Your task to perform on an android device: turn on javascript in the chrome app Image 0: 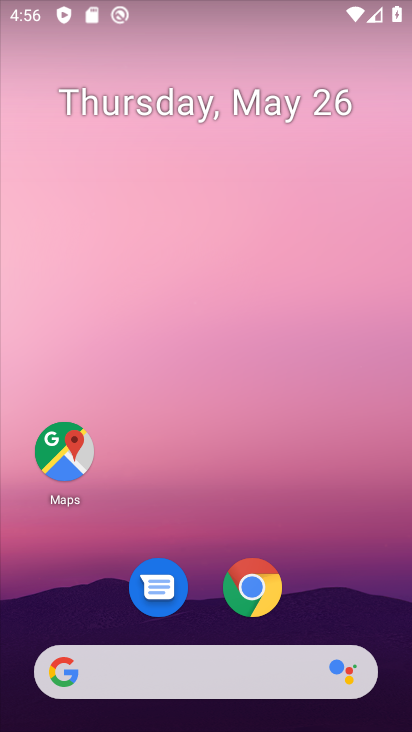
Step 0: click (246, 594)
Your task to perform on an android device: turn on javascript in the chrome app Image 1: 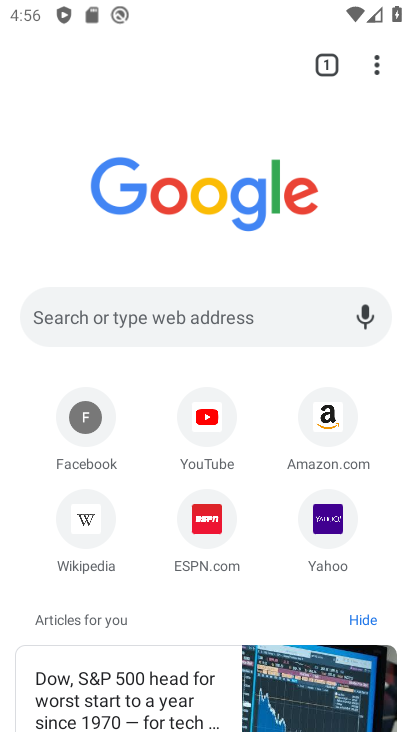
Step 1: click (376, 70)
Your task to perform on an android device: turn on javascript in the chrome app Image 2: 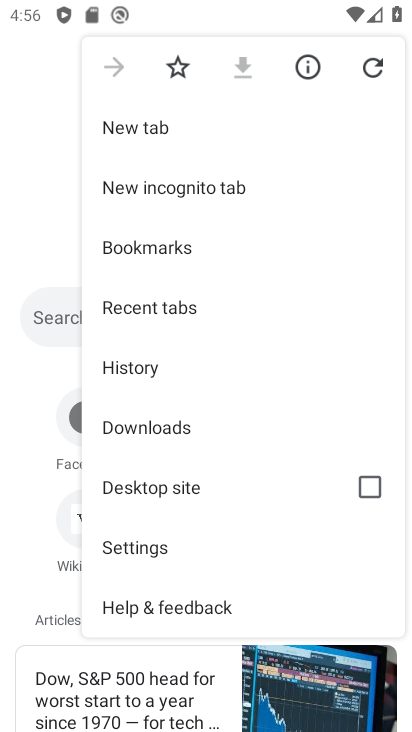
Step 2: click (130, 544)
Your task to perform on an android device: turn on javascript in the chrome app Image 3: 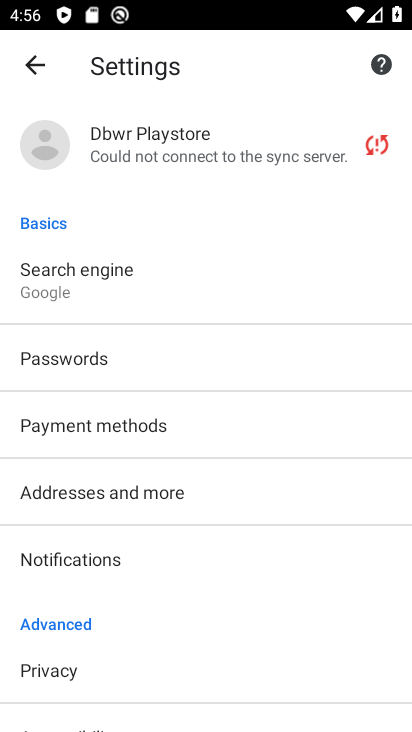
Step 3: drag from (110, 673) to (117, 209)
Your task to perform on an android device: turn on javascript in the chrome app Image 4: 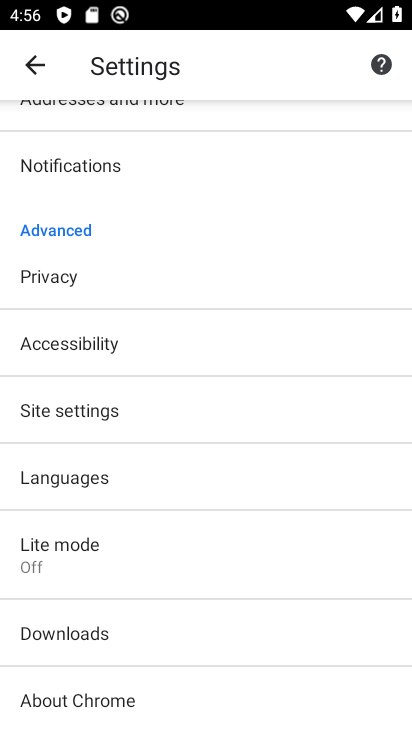
Step 4: click (77, 411)
Your task to perform on an android device: turn on javascript in the chrome app Image 5: 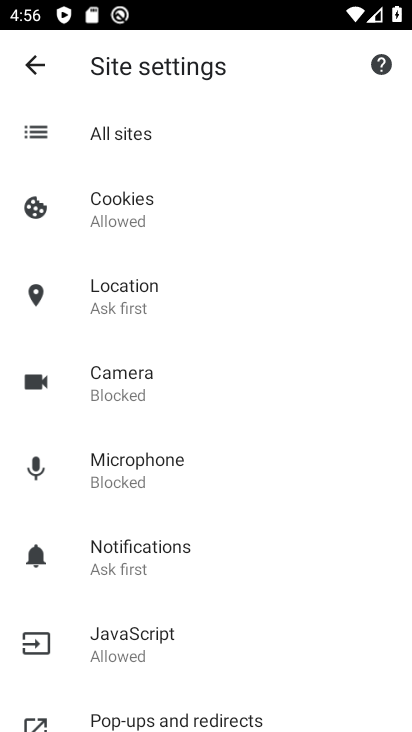
Step 5: click (142, 632)
Your task to perform on an android device: turn on javascript in the chrome app Image 6: 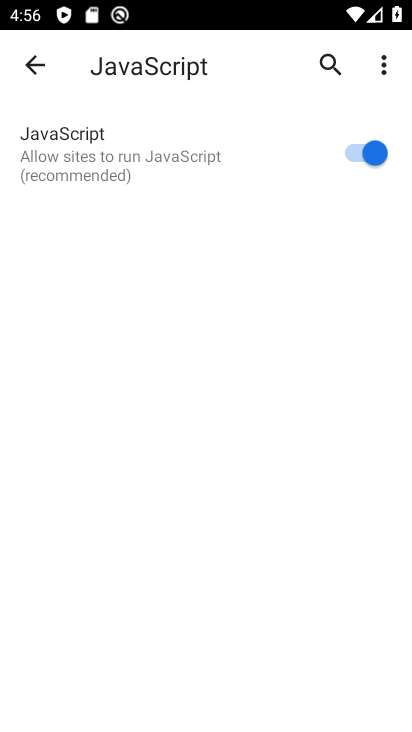
Step 6: task complete